Your task to perform on an android device: Clear all items from cart on costco. Add dell xps to the cart on costco, then select checkout. Image 0: 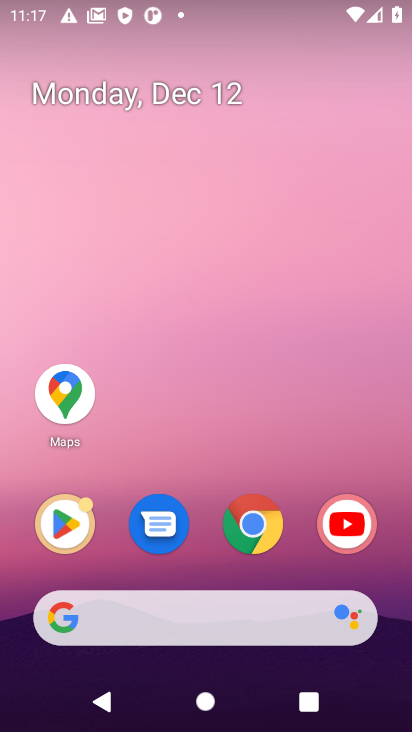
Step 0: click (256, 524)
Your task to perform on an android device: Clear all items from cart on costco. Add dell xps to the cart on costco, then select checkout. Image 1: 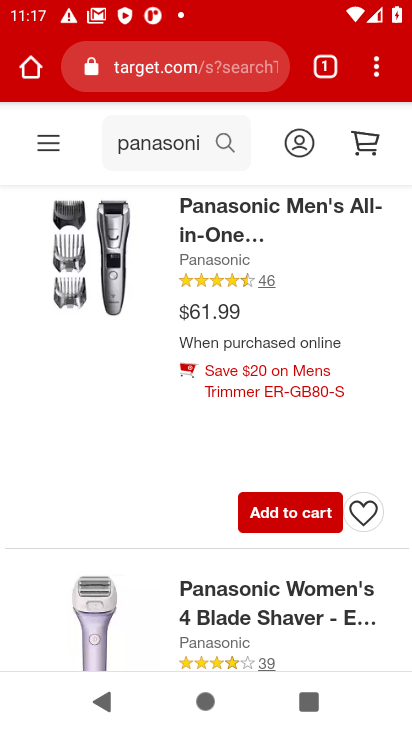
Step 1: click (158, 71)
Your task to perform on an android device: Clear all items from cart on costco. Add dell xps to the cart on costco, then select checkout. Image 2: 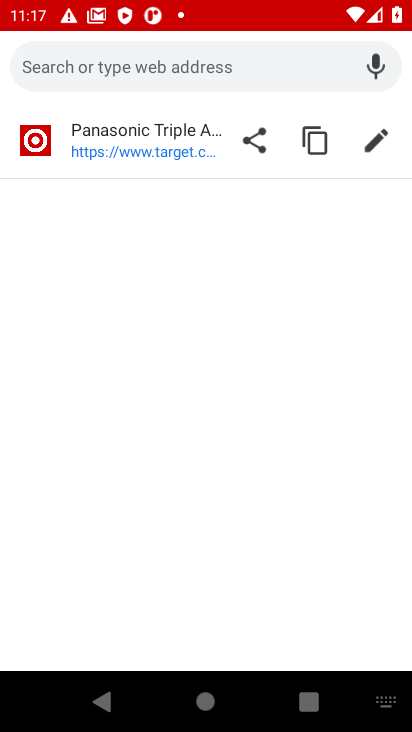
Step 2: type "costco.com"
Your task to perform on an android device: Clear all items from cart on costco. Add dell xps to the cart on costco, then select checkout. Image 3: 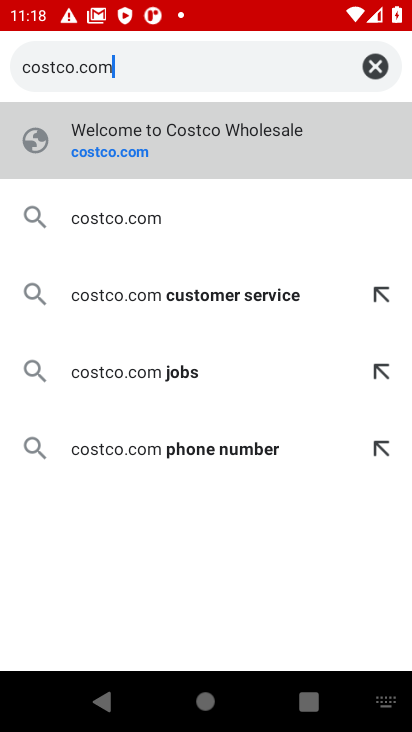
Step 3: click (130, 144)
Your task to perform on an android device: Clear all items from cart on costco. Add dell xps to the cart on costco, then select checkout. Image 4: 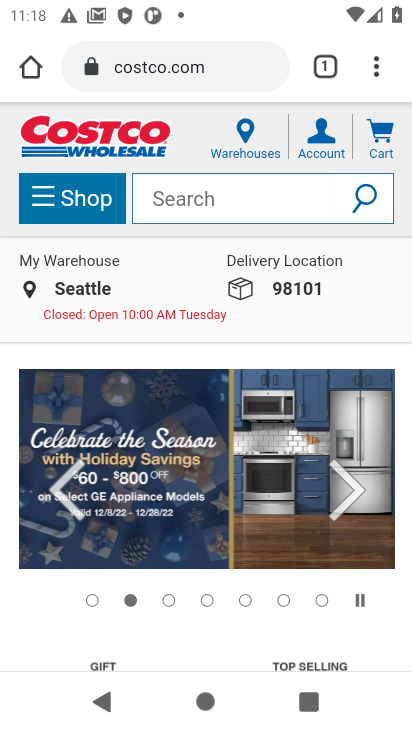
Step 4: click (379, 138)
Your task to perform on an android device: Clear all items from cart on costco. Add dell xps to the cart on costco, then select checkout. Image 5: 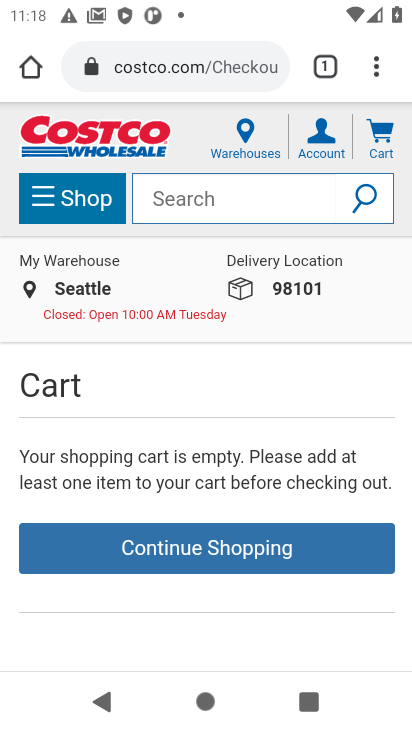
Step 5: click (179, 196)
Your task to perform on an android device: Clear all items from cart on costco. Add dell xps to the cart on costco, then select checkout. Image 6: 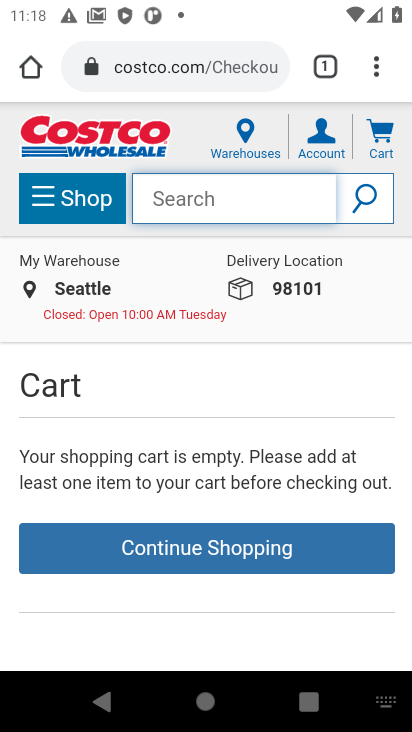
Step 6: type "dell xps"
Your task to perform on an android device: Clear all items from cart on costco. Add dell xps to the cart on costco, then select checkout. Image 7: 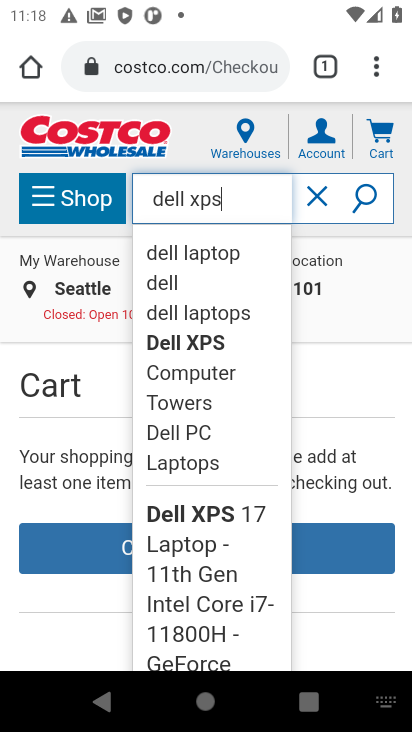
Step 7: click (373, 198)
Your task to perform on an android device: Clear all items from cart on costco. Add dell xps to the cart on costco, then select checkout. Image 8: 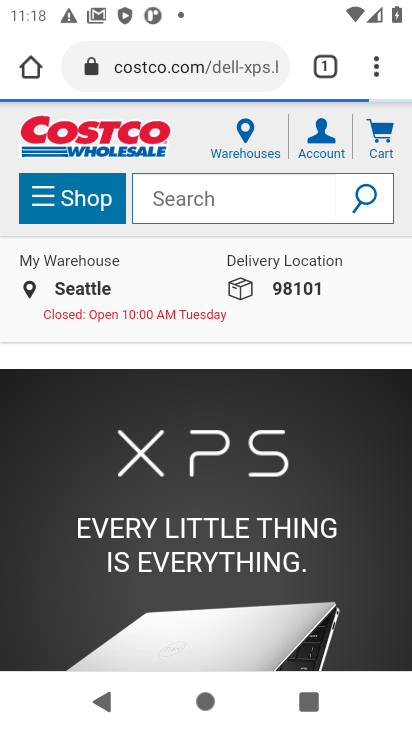
Step 8: task complete